Your task to perform on an android device: Search for Italian restaurants on Maps Image 0: 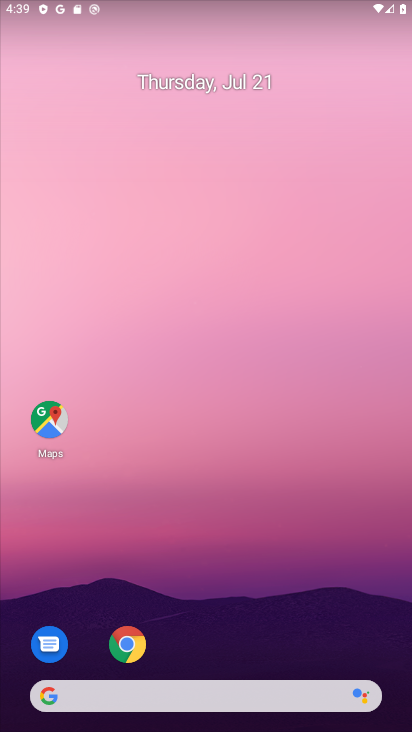
Step 0: click (49, 435)
Your task to perform on an android device: Search for Italian restaurants on Maps Image 1: 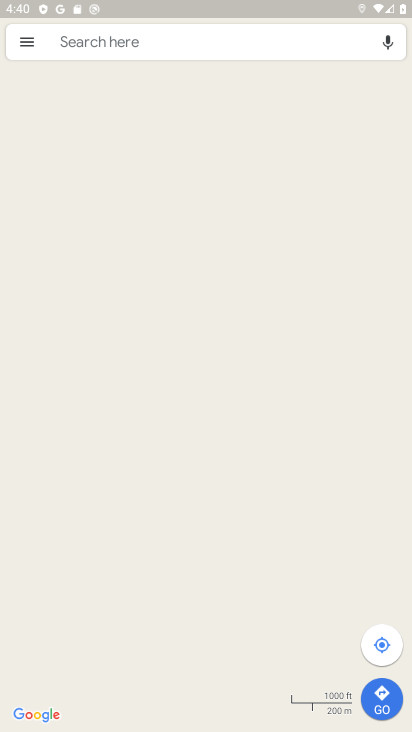
Step 1: click (175, 32)
Your task to perform on an android device: Search for Italian restaurants on Maps Image 2: 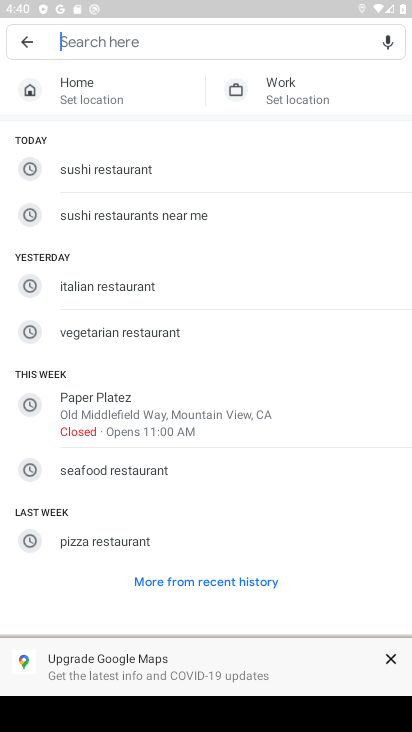
Step 2: click (93, 290)
Your task to perform on an android device: Search for Italian restaurants on Maps Image 3: 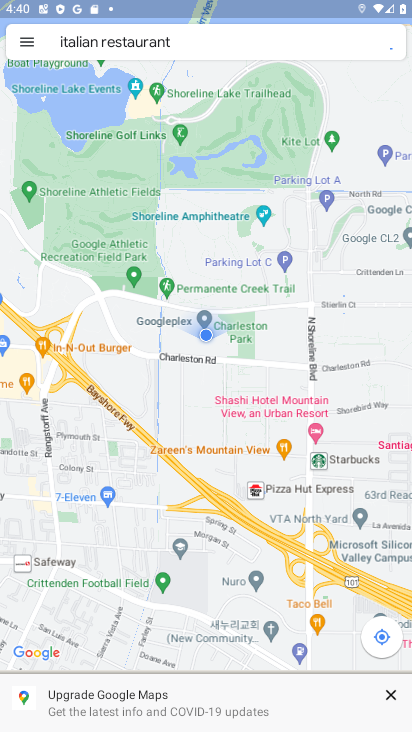
Step 3: task complete